Your task to perform on an android device: toggle location history Image 0: 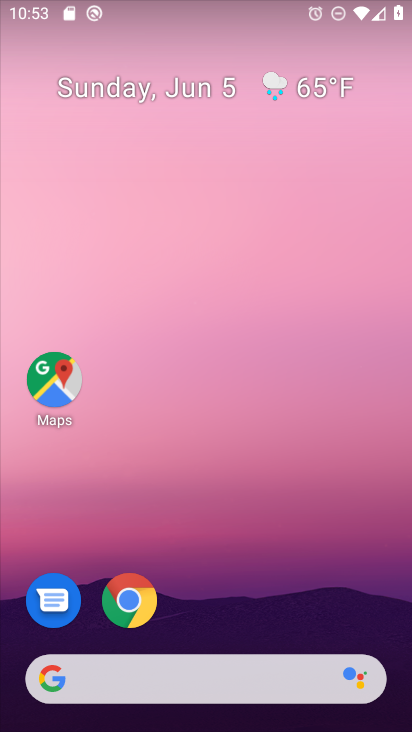
Step 0: drag from (374, 618) to (381, 388)
Your task to perform on an android device: toggle location history Image 1: 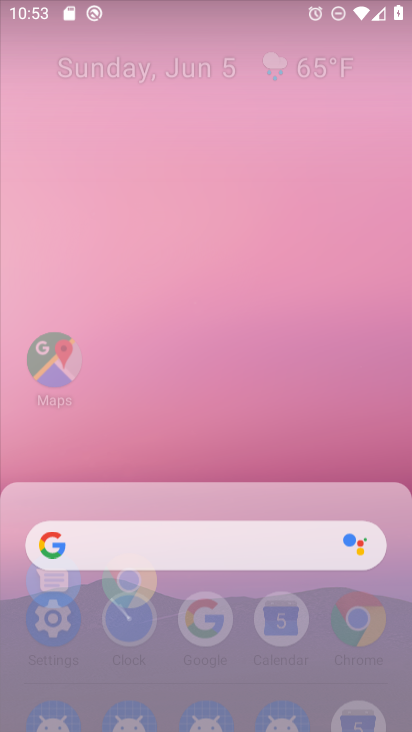
Step 1: drag from (372, 135) to (355, 77)
Your task to perform on an android device: toggle location history Image 2: 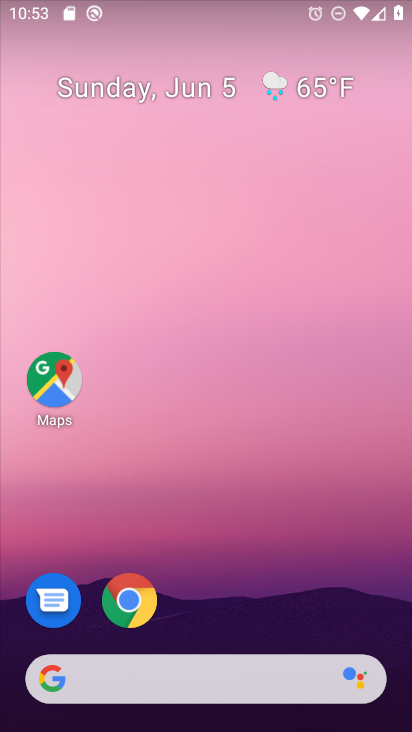
Step 2: drag from (391, 634) to (326, 87)
Your task to perform on an android device: toggle location history Image 3: 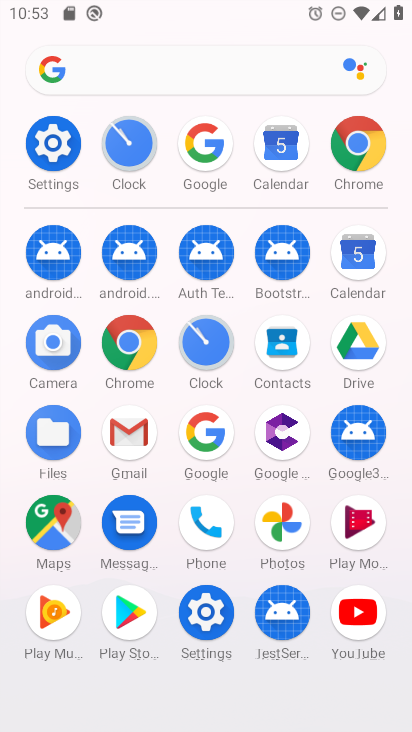
Step 3: click (72, 141)
Your task to perform on an android device: toggle location history Image 4: 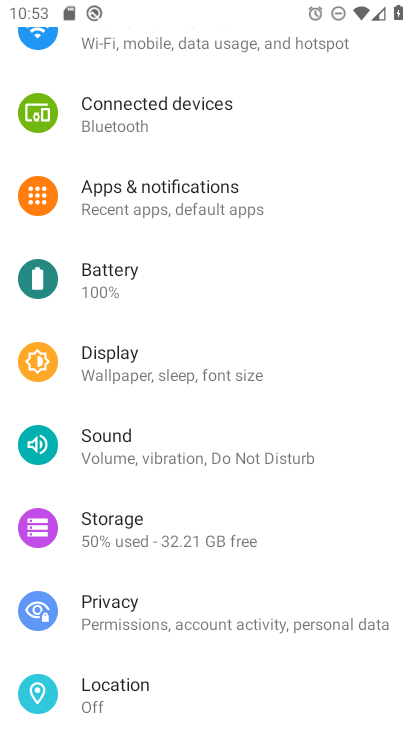
Step 4: click (133, 680)
Your task to perform on an android device: toggle location history Image 5: 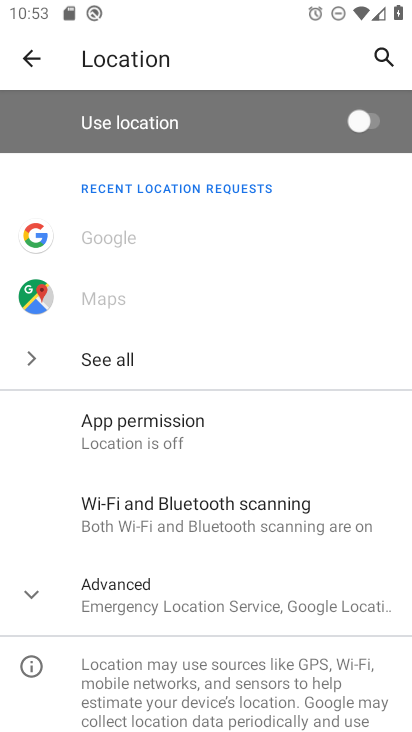
Step 5: click (148, 596)
Your task to perform on an android device: toggle location history Image 6: 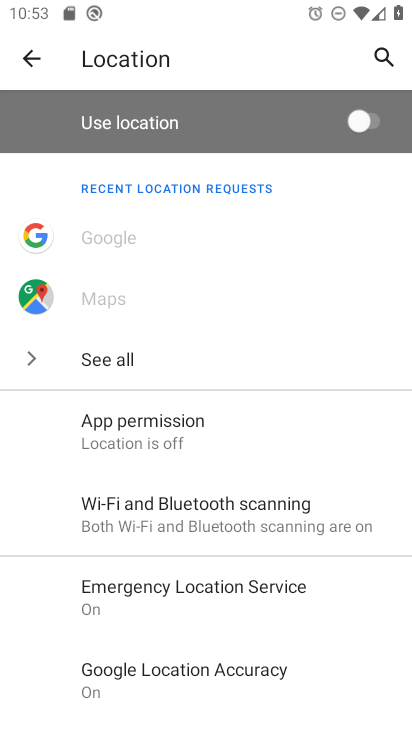
Step 6: drag from (194, 691) to (249, 375)
Your task to perform on an android device: toggle location history Image 7: 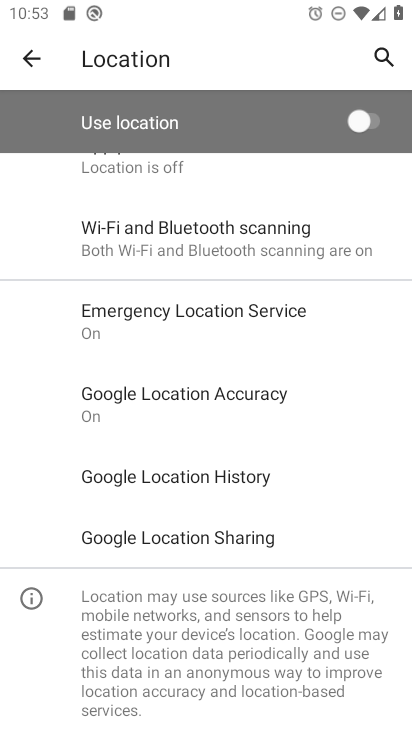
Step 7: click (220, 481)
Your task to perform on an android device: toggle location history Image 8: 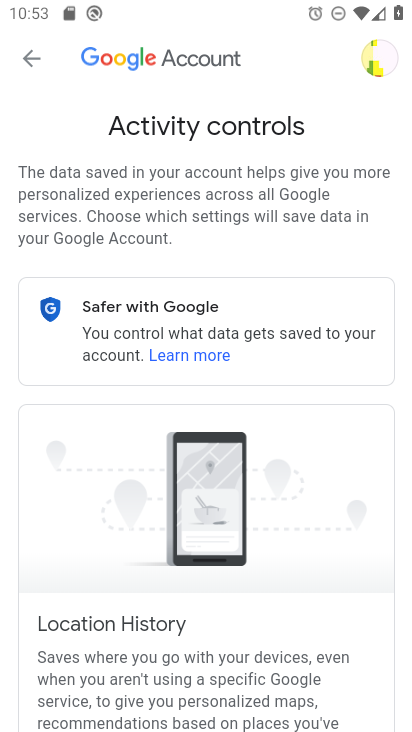
Step 8: click (303, 649)
Your task to perform on an android device: toggle location history Image 9: 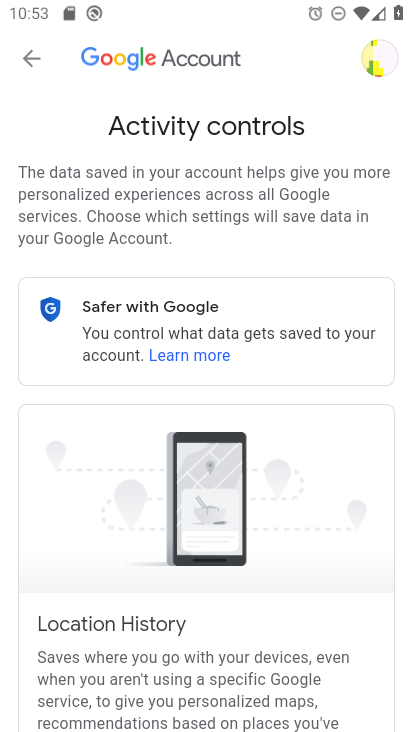
Step 9: drag from (332, 414) to (293, 209)
Your task to perform on an android device: toggle location history Image 10: 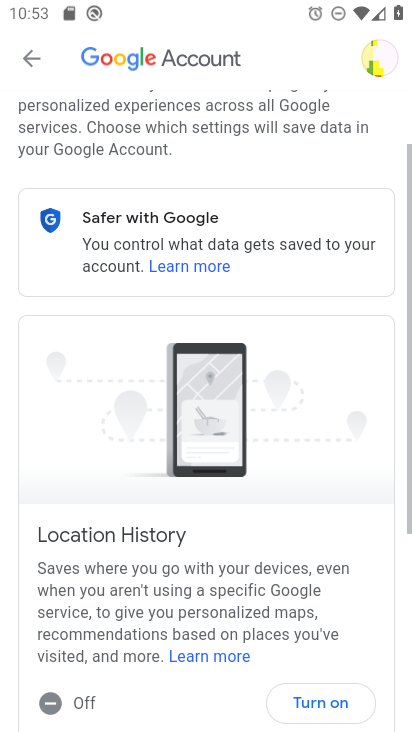
Step 10: click (280, 175)
Your task to perform on an android device: toggle location history Image 11: 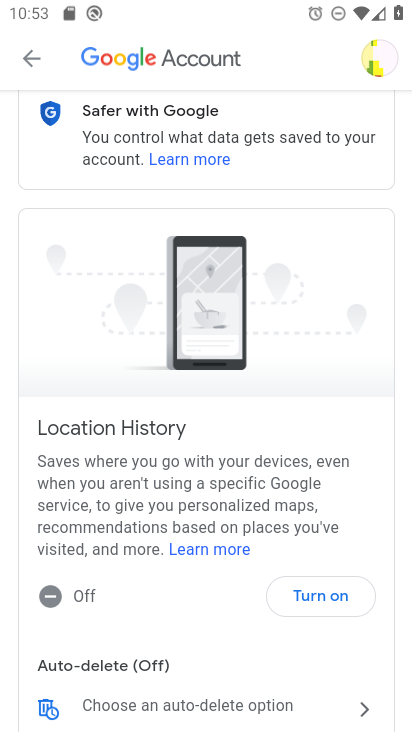
Step 11: click (310, 605)
Your task to perform on an android device: toggle location history Image 12: 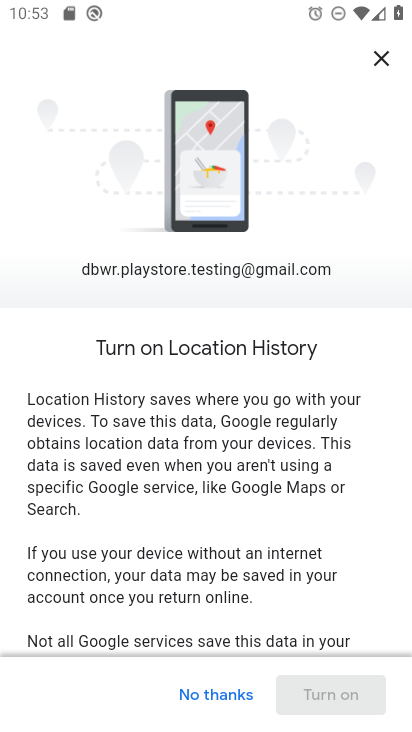
Step 12: task complete